Your task to perform on an android device: Go to Amazon Image 0: 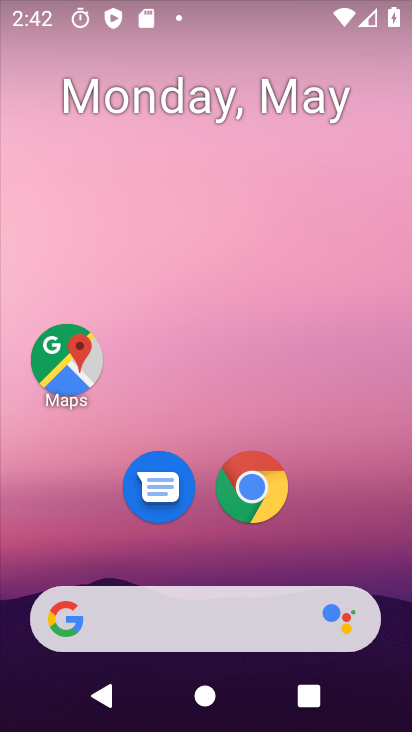
Step 0: click (253, 498)
Your task to perform on an android device: Go to Amazon Image 1: 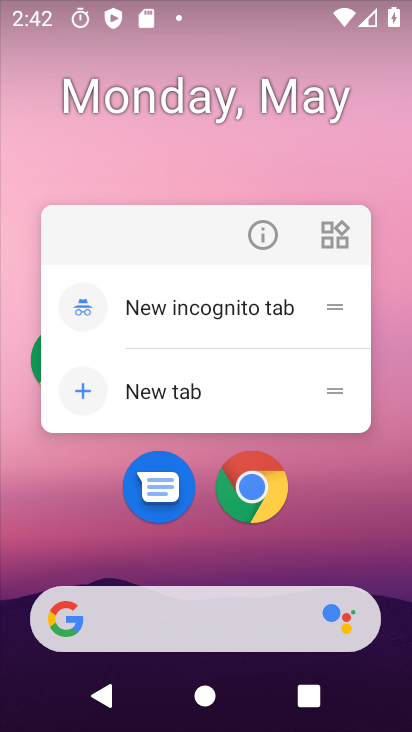
Step 1: click (261, 469)
Your task to perform on an android device: Go to Amazon Image 2: 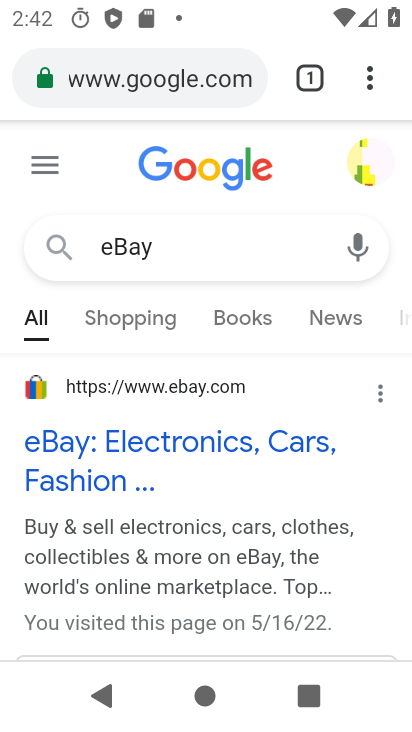
Step 2: click (373, 73)
Your task to perform on an android device: Go to Amazon Image 3: 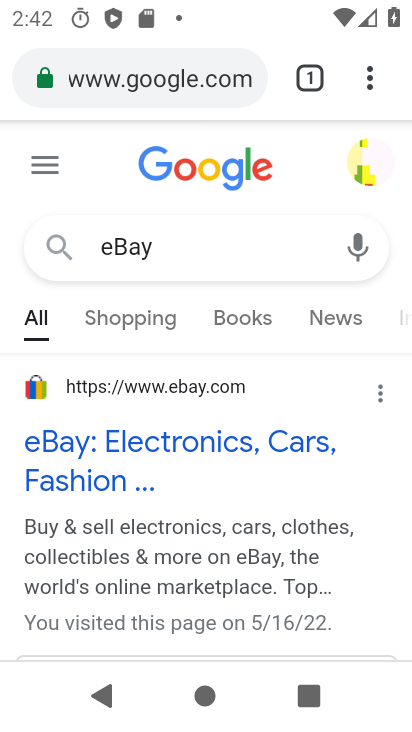
Step 3: click (392, 72)
Your task to perform on an android device: Go to Amazon Image 4: 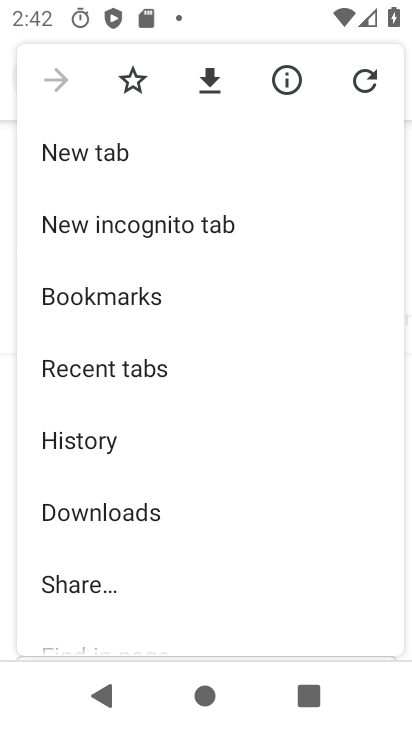
Step 4: click (113, 150)
Your task to perform on an android device: Go to Amazon Image 5: 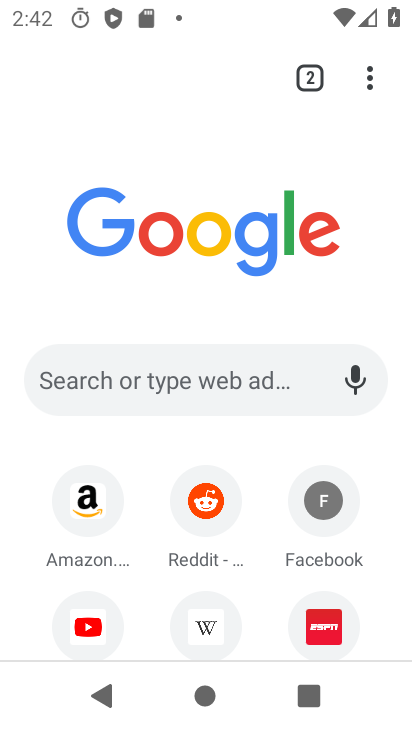
Step 5: click (98, 521)
Your task to perform on an android device: Go to Amazon Image 6: 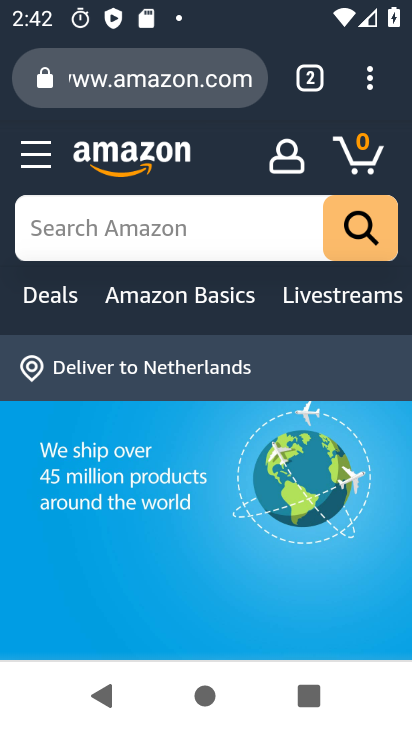
Step 6: task complete